Your task to perform on an android device: turn notification dots off Image 0: 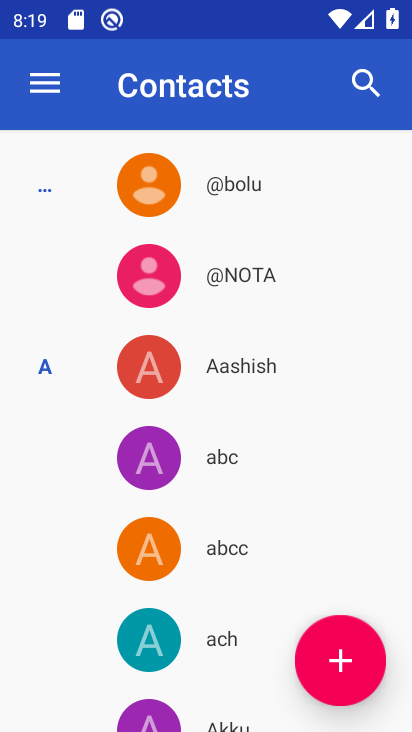
Step 0: press home button
Your task to perform on an android device: turn notification dots off Image 1: 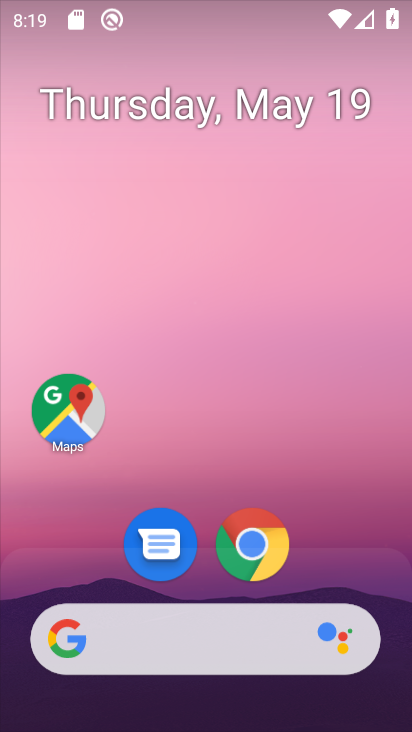
Step 1: drag from (324, 568) to (270, 15)
Your task to perform on an android device: turn notification dots off Image 2: 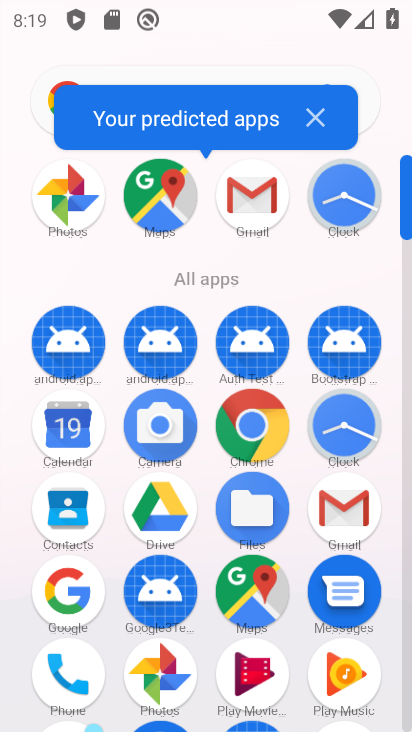
Step 2: drag from (202, 668) to (217, 219)
Your task to perform on an android device: turn notification dots off Image 3: 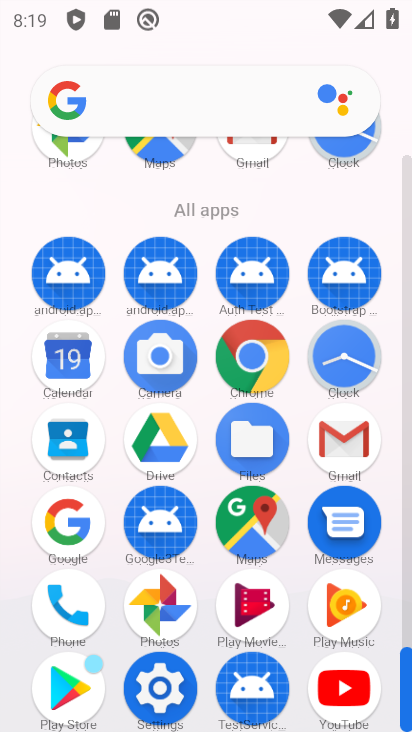
Step 3: click (167, 674)
Your task to perform on an android device: turn notification dots off Image 4: 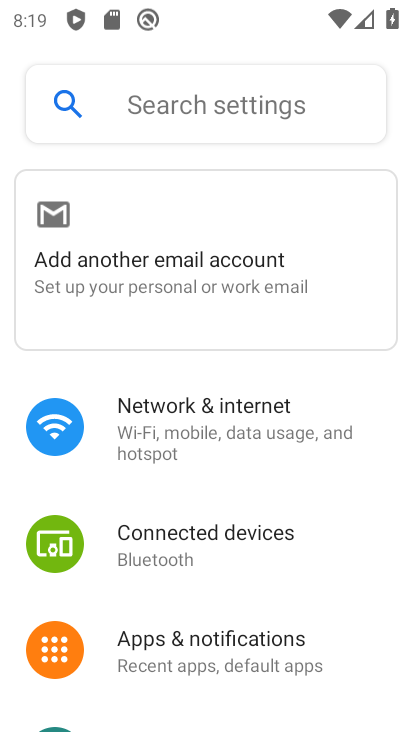
Step 4: click (196, 658)
Your task to perform on an android device: turn notification dots off Image 5: 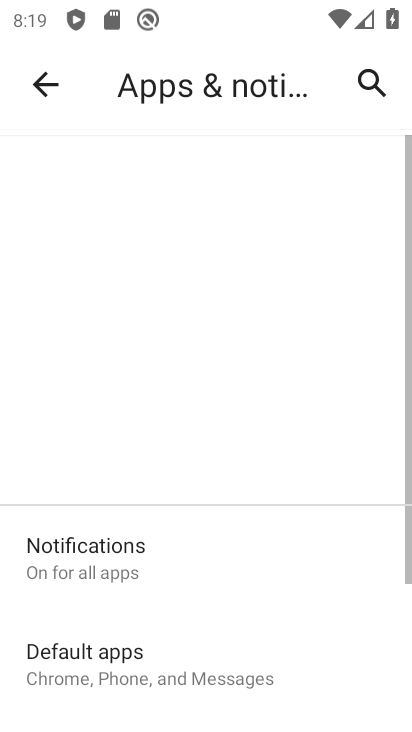
Step 5: click (198, 574)
Your task to perform on an android device: turn notification dots off Image 6: 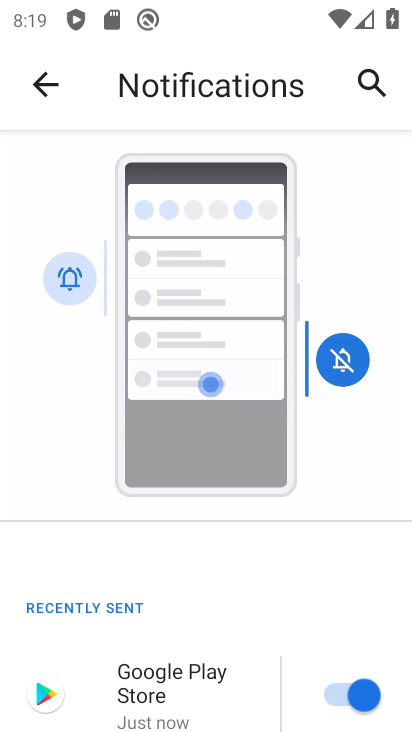
Step 6: drag from (187, 685) to (226, 37)
Your task to perform on an android device: turn notification dots off Image 7: 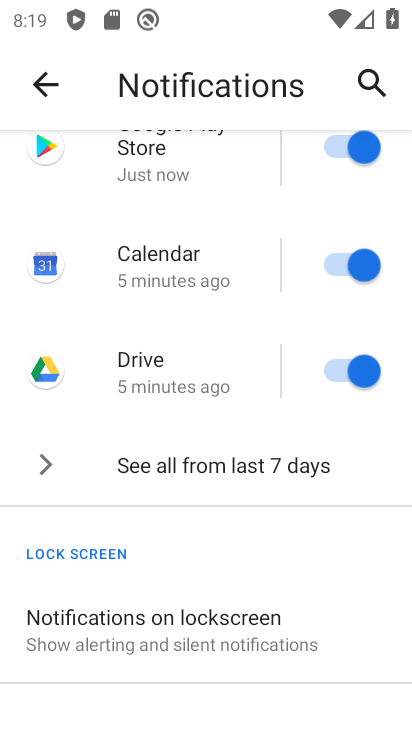
Step 7: drag from (194, 640) to (249, 122)
Your task to perform on an android device: turn notification dots off Image 8: 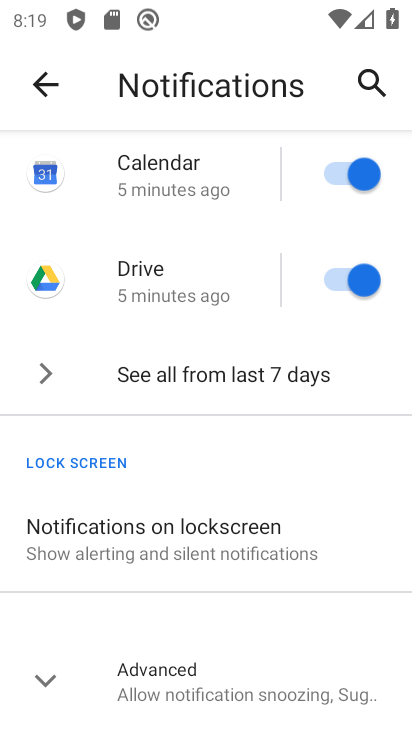
Step 8: click (125, 670)
Your task to perform on an android device: turn notification dots off Image 9: 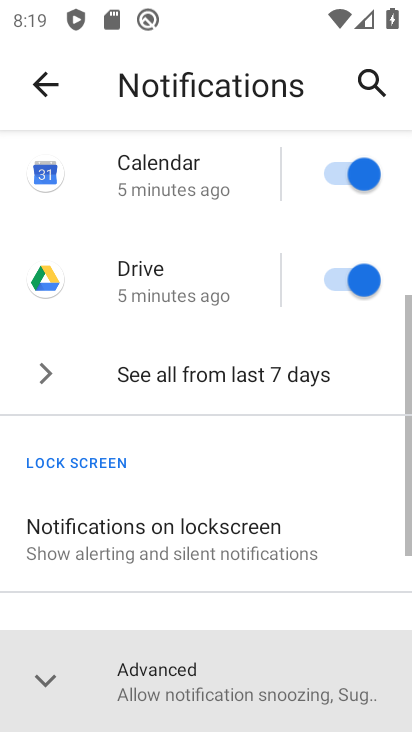
Step 9: drag from (117, 668) to (147, 233)
Your task to perform on an android device: turn notification dots off Image 10: 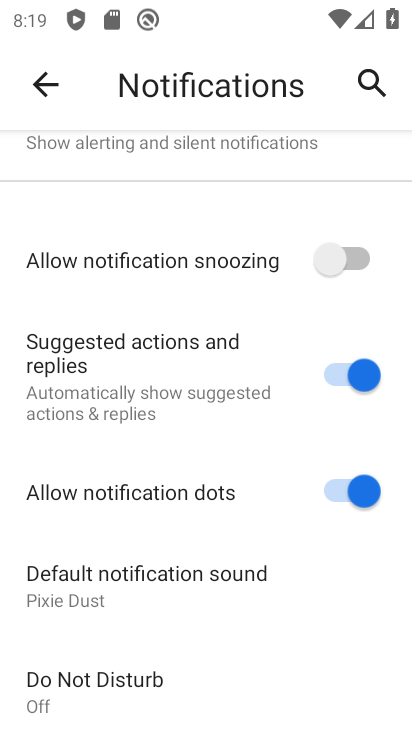
Step 10: click (224, 493)
Your task to perform on an android device: turn notification dots off Image 11: 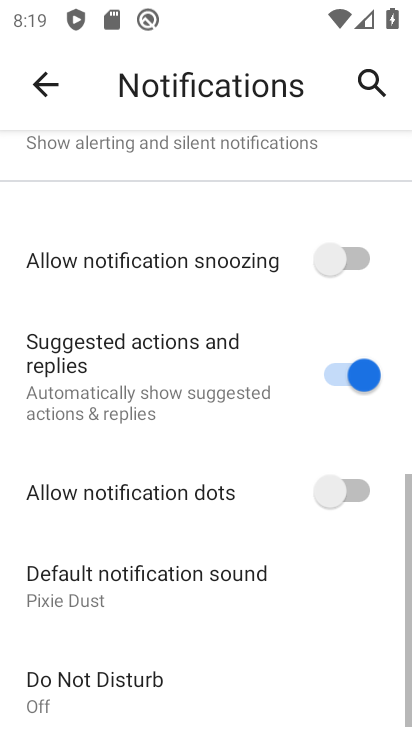
Step 11: task complete